Your task to perform on an android device: change timer sound Image 0: 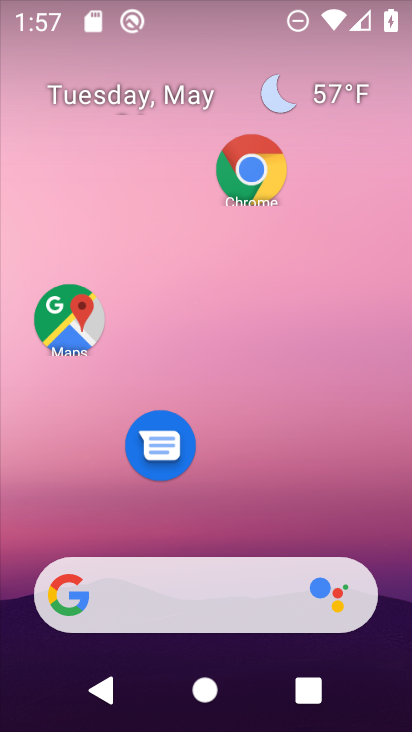
Step 0: drag from (243, 723) to (230, 166)
Your task to perform on an android device: change timer sound Image 1: 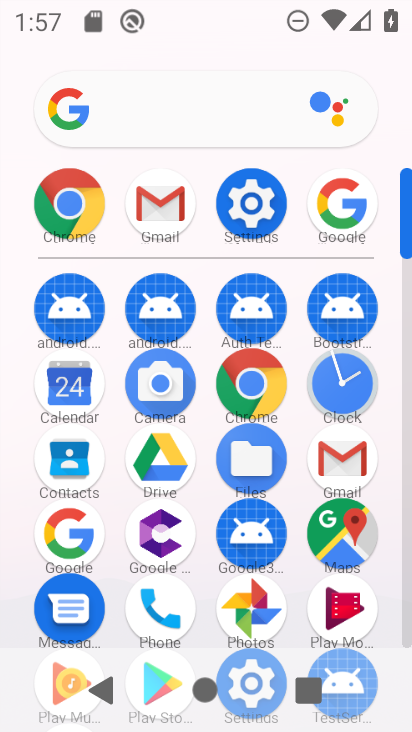
Step 1: click (345, 392)
Your task to perform on an android device: change timer sound Image 2: 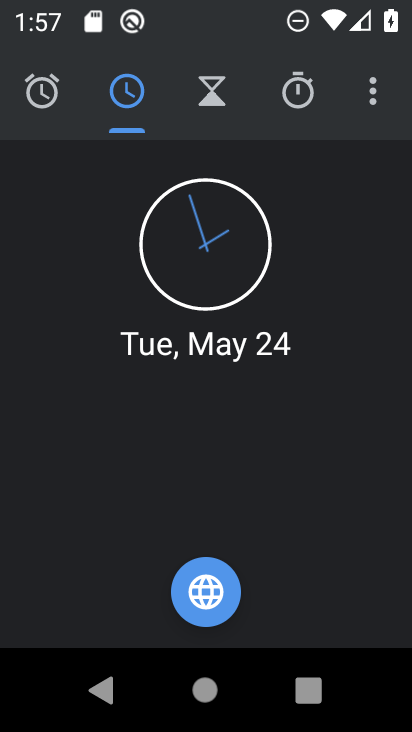
Step 2: click (375, 89)
Your task to perform on an android device: change timer sound Image 3: 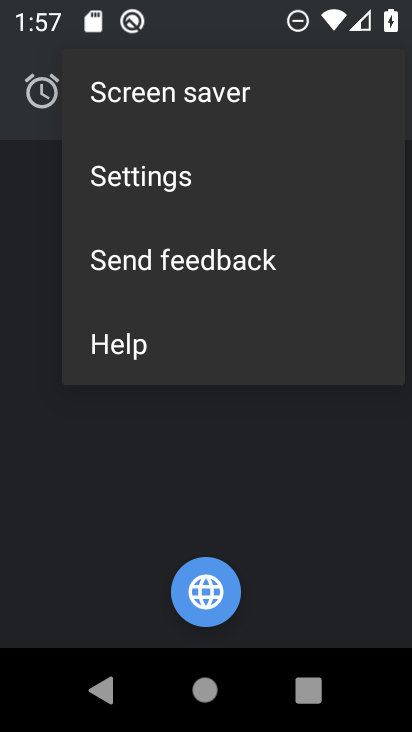
Step 3: click (156, 180)
Your task to perform on an android device: change timer sound Image 4: 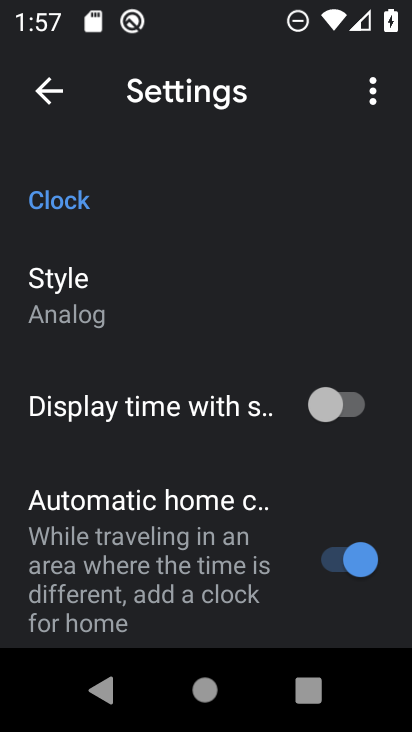
Step 4: drag from (168, 617) to (177, 201)
Your task to perform on an android device: change timer sound Image 5: 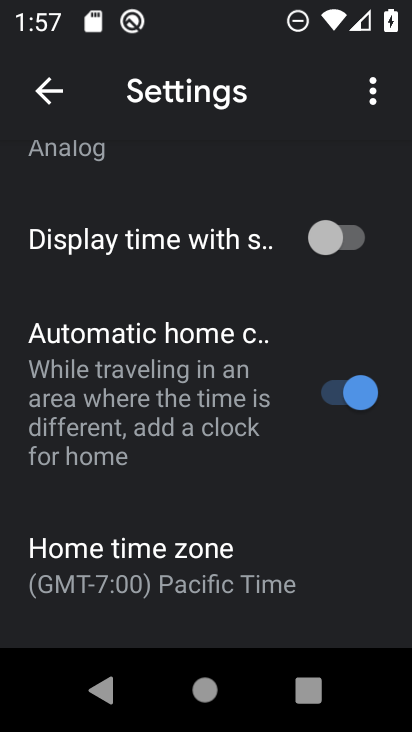
Step 5: drag from (131, 594) to (145, 210)
Your task to perform on an android device: change timer sound Image 6: 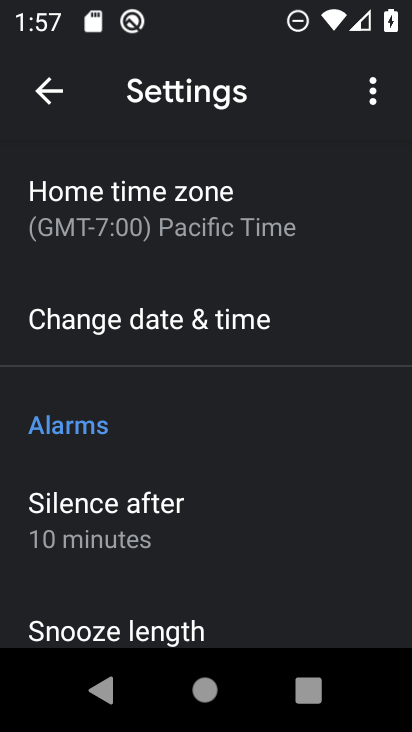
Step 6: drag from (105, 593) to (131, 179)
Your task to perform on an android device: change timer sound Image 7: 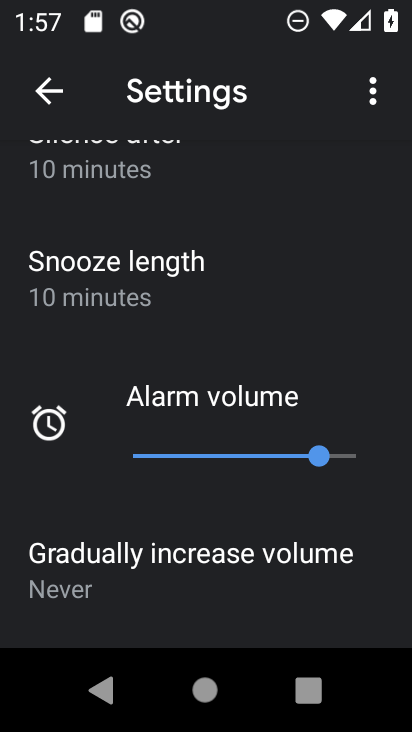
Step 7: drag from (157, 603) to (173, 217)
Your task to perform on an android device: change timer sound Image 8: 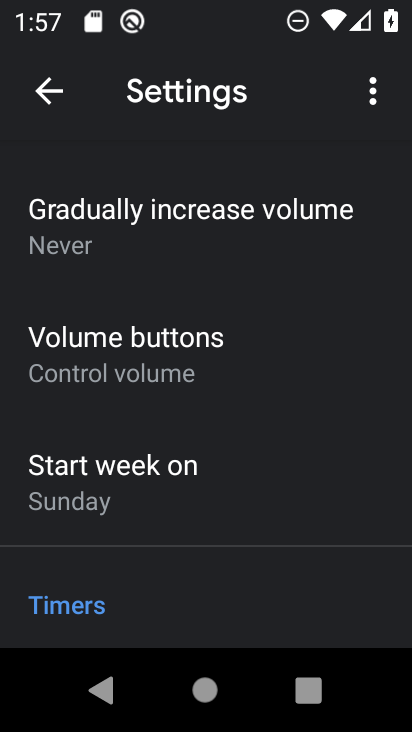
Step 8: drag from (133, 532) to (160, 297)
Your task to perform on an android device: change timer sound Image 9: 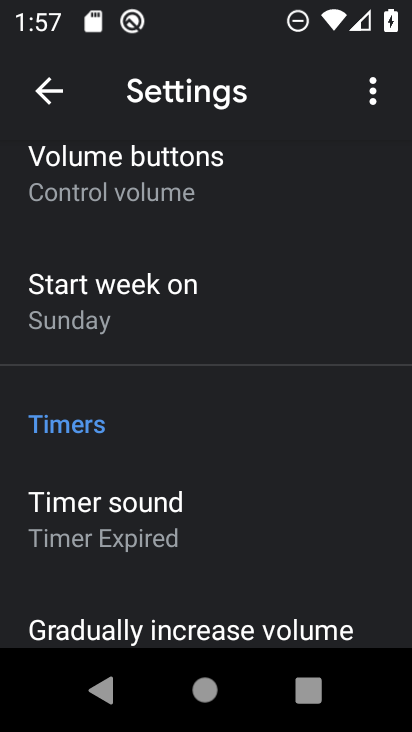
Step 9: click (116, 525)
Your task to perform on an android device: change timer sound Image 10: 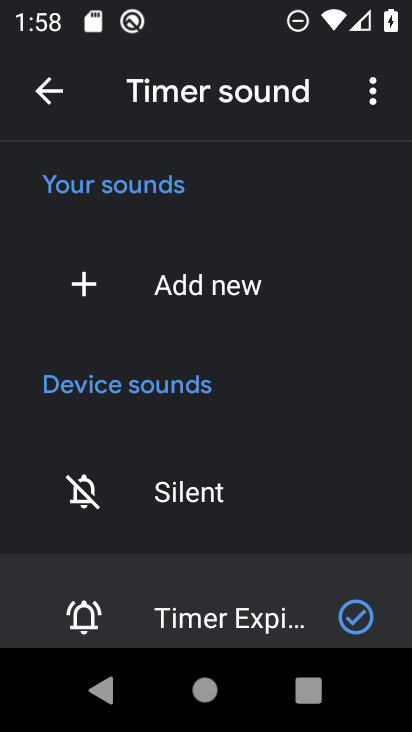
Step 10: drag from (139, 615) to (143, 245)
Your task to perform on an android device: change timer sound Image 11: 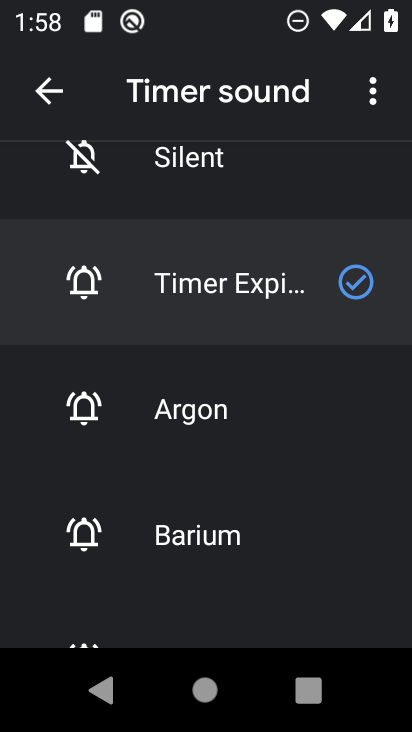
Step 11: click (166, 531)
Your task to perform on an android device: change timer sound Image 12: 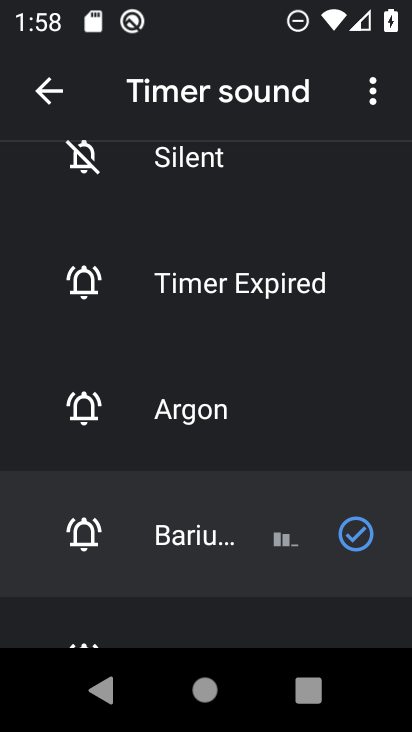
Step 12: task complete